Your task to perform on an android device: remove spam from my inbox in the gmail app Image 0: 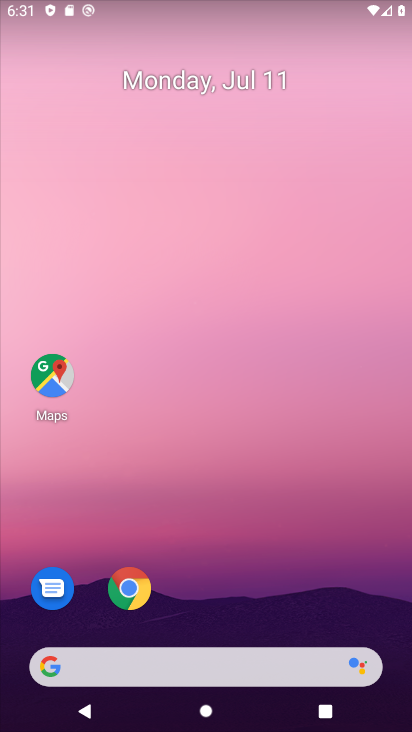
Step 0: drag from (402, 664) to (310, 16)
Your task to perform on an android device: remove spam from my inbox in the gmail app Image 1: 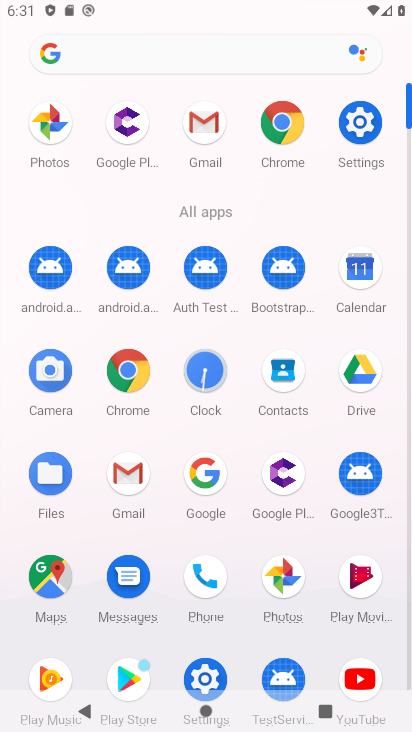
Step 1: click (121, 481)
Your task to perform on an android device: remove spam from my inbox in the gmail app Image 2: 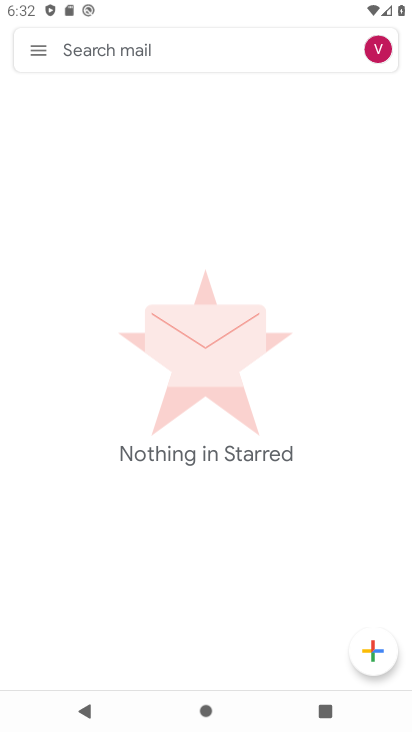
Step 2: task complete